Your task to perform on an android device: turn on improve location accuracy Image 0: 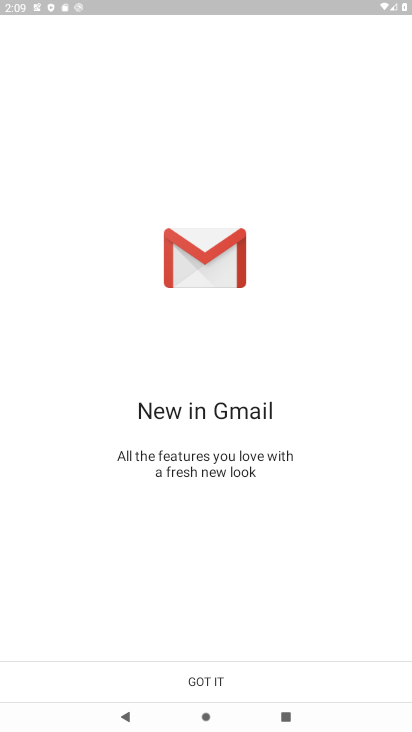
Step 0: press home button
Your task to perform on an android device: turn on improve location accuracy Image 1: 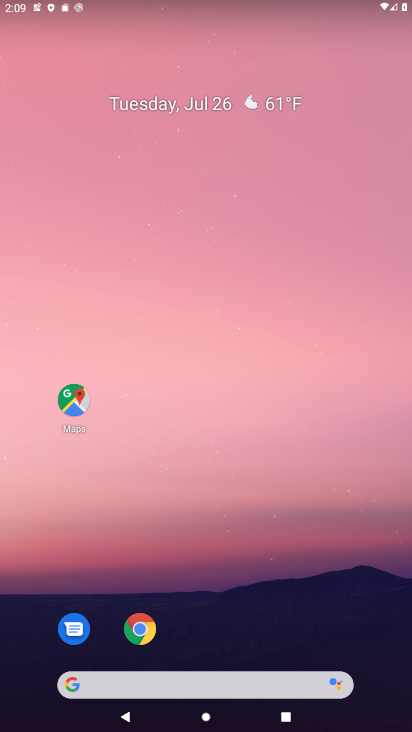
Step 1: drag from (219, 661) to (191, 229)
Your task to perform on an android device: turn on improve location accuracy Image 2: 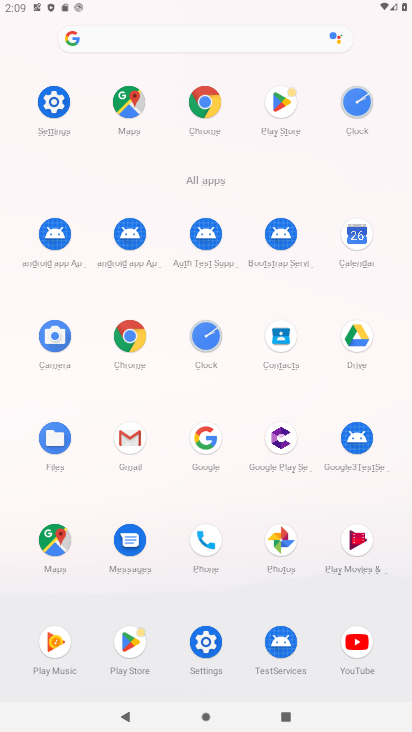
Step 2: click (48, 110)
Your task to perform on an android device: turn on improve location accuracy Image 3: 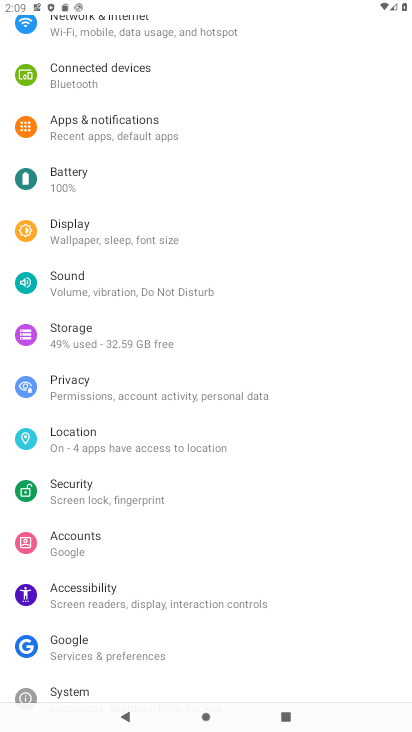
Step 3: click (68, 436)
Your task to perform on an android device: turn on improve location accuracy Image 4: 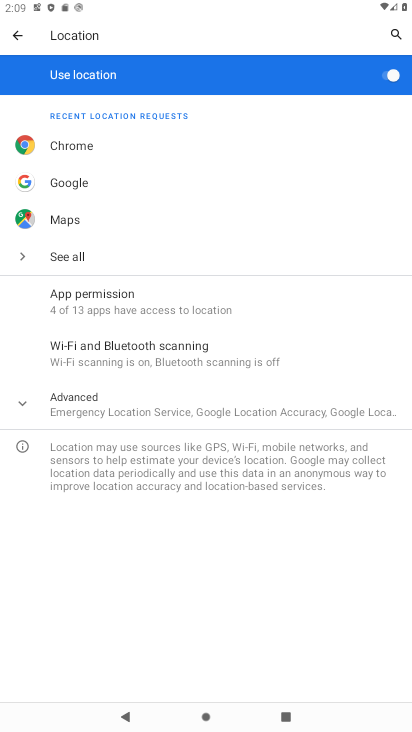
Step 4: click (133, 407)
Your task to perform on an android device: turn on improve location accuracy Image 5: 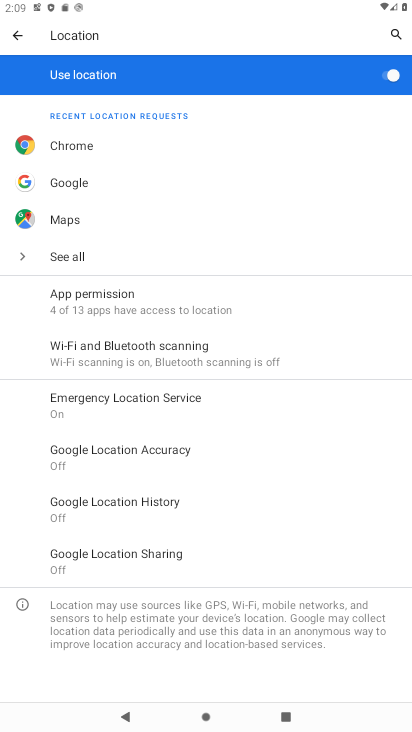
Step 5: click (110, 460)
Your task to perform on an android device: turn on improve location accuracy Image 6: 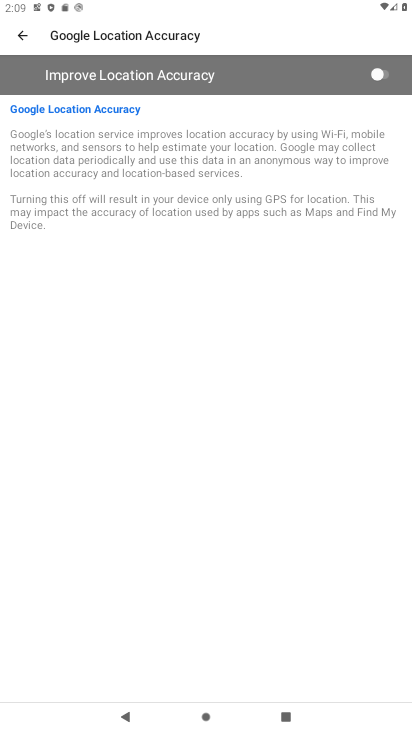
Step 6: click (380, 73)
Your task to perform on an android device: turn on improve location accuracy Image 7: 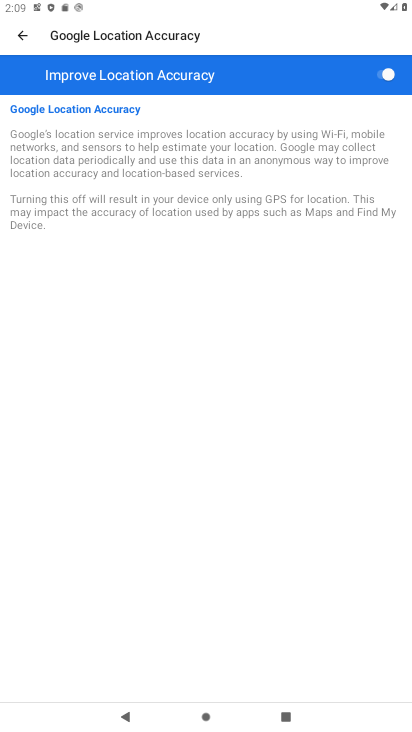
Step 7: task complete